Your task to perform on an android device: turn on the 24-hour format for clock Image 0: 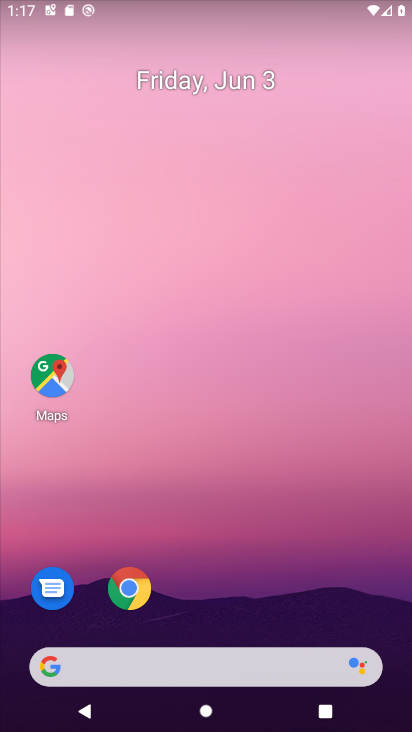
Step 0: drag from (263, 680) to (384, 250)
Your task to perform on an android device: turn on the 24-hour format for clock Image 1: 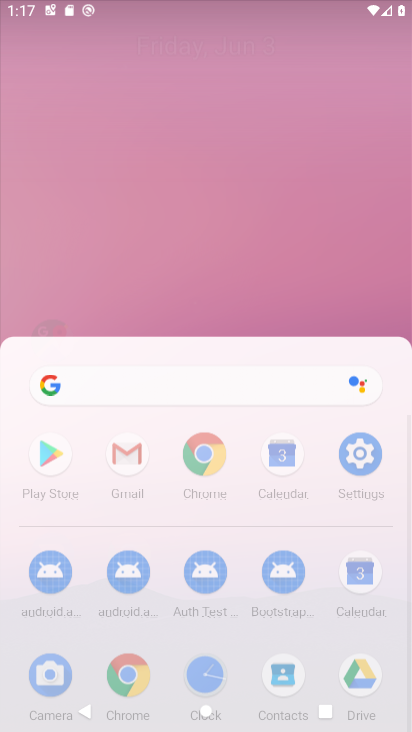
Step 1: click (382, 56)
Your task to perform on an android device: turn on the 24-hour format for clock Image 2: 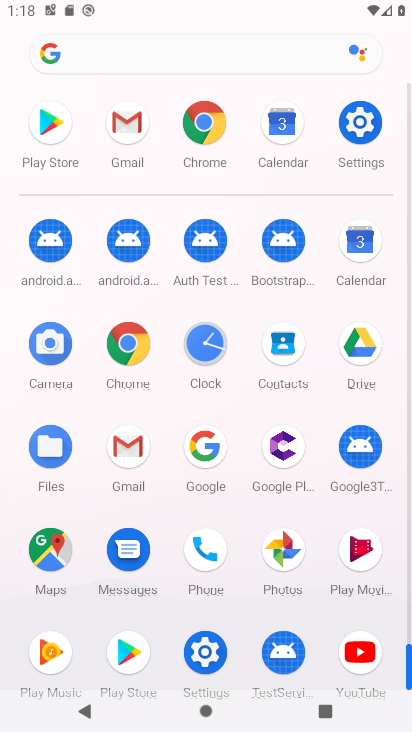
Step 2: click (224, 355)
Your task to perform on an android device: turn on the 24-hour format for clock Image 3: 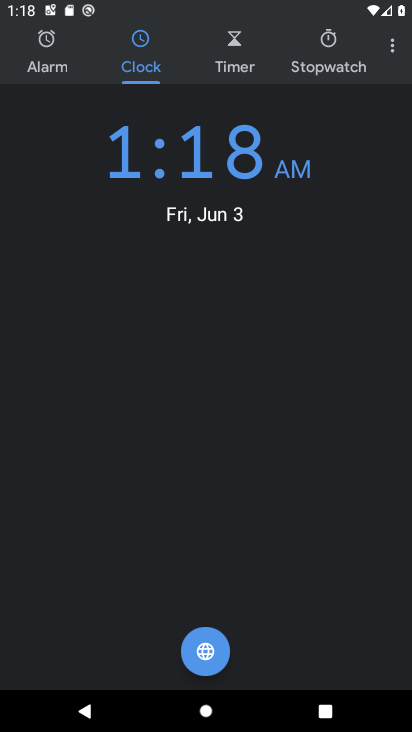
Step 3: click (399, 47)
Your task to perform on an android device: turn on the 24-hour format for clock Image 4: 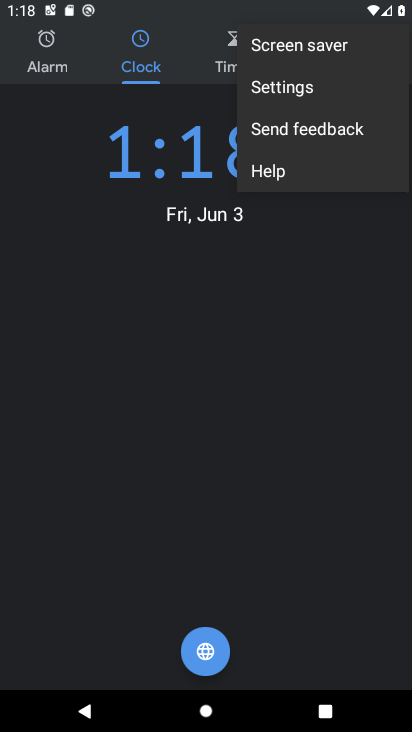
Step 4: click (324, 88)
Your task to perform on an android device: turn on the 24-hour format for clock Image 5: 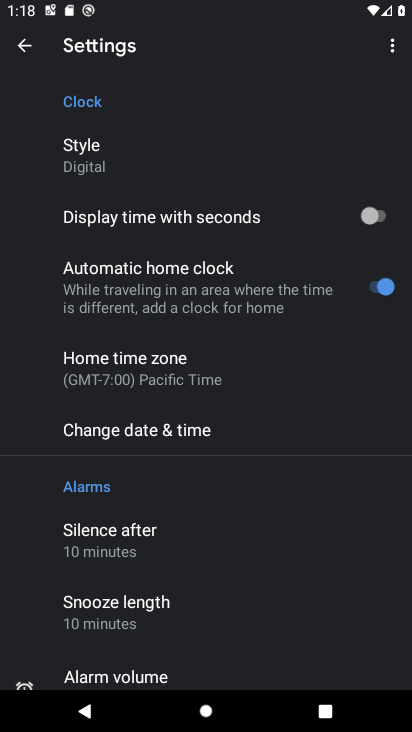
Step 5: click (226, 425)
Your task to perform on an android device: turn on the 24-hour format for clock Image 6: 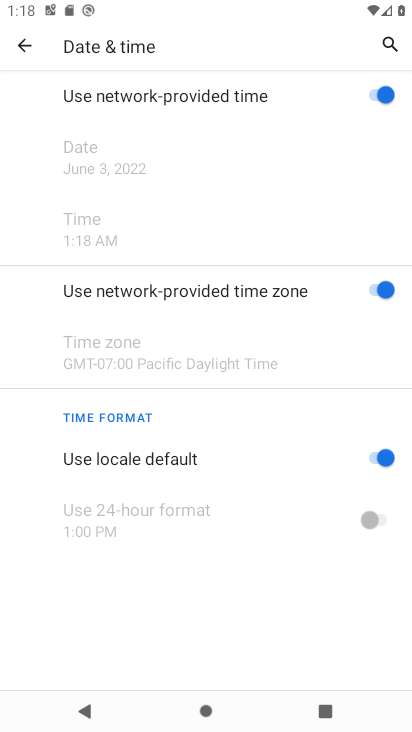
Step 6: click (173, 499)
Your task to perform on an android device: turn on the 24-hour format for clock Image 7: 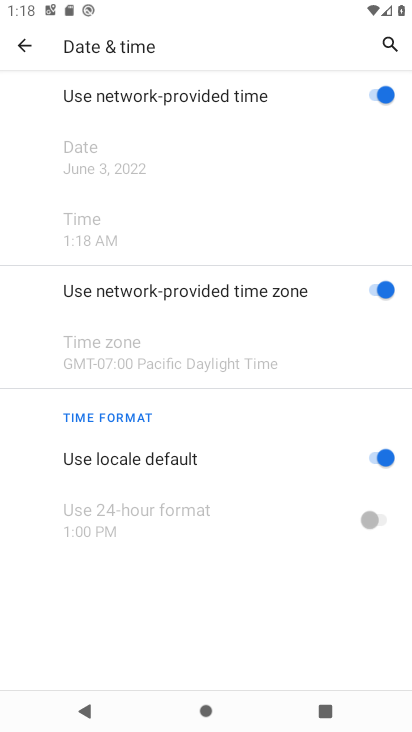
Step 7: task complete